Your task to perform on an android device: Is it going to rain this weekend? Image 0: 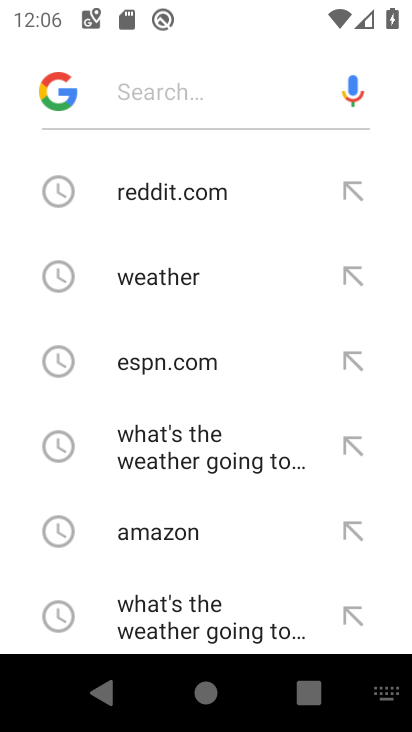
Step 0: press home button
Your task to perform on an android device: Is it going to rain this weekend? Image 1: 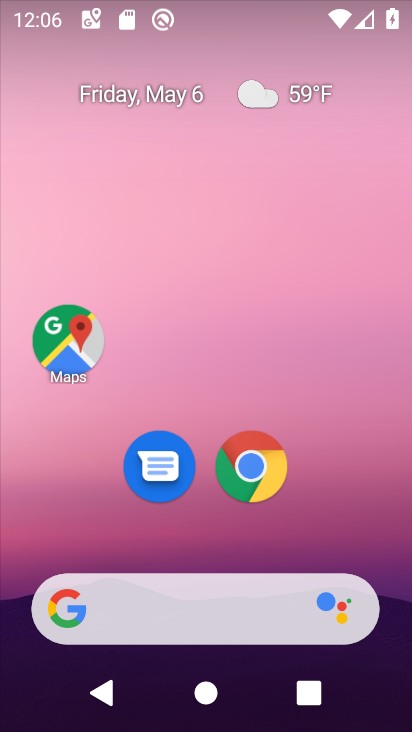
Step 1: click (276, 491)
Your task to perform on an android device: Is it going to rain this weekend? Image 2: 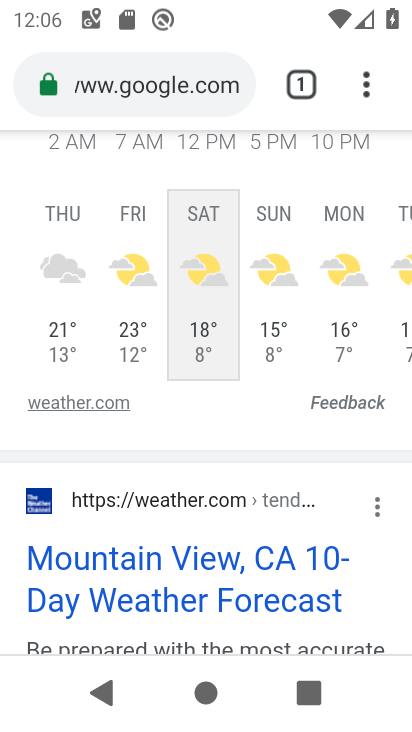
Step 2: click (191, 94)
Your task to perform on an android device: Is it going to rain this weekend? Image 3: 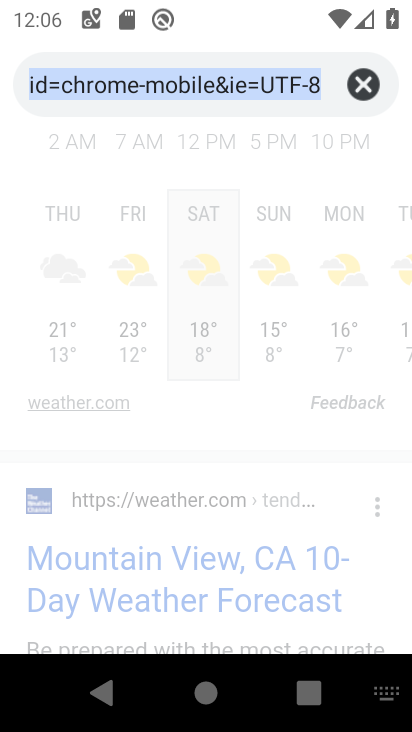
Step 3: type "Is it going to rain this weekend?"
Your task to perform on an android device: Is it going to rain this weekend? Image 4: 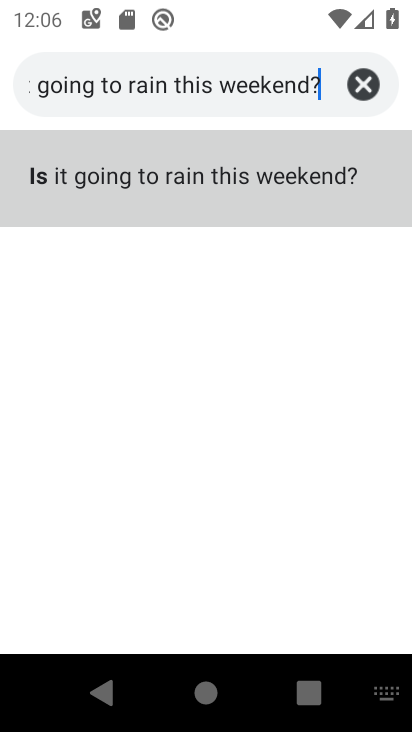
Step 4: click (269, 176)
Your task to perform on an android device: Is it going to rain this weekend? Image 5: 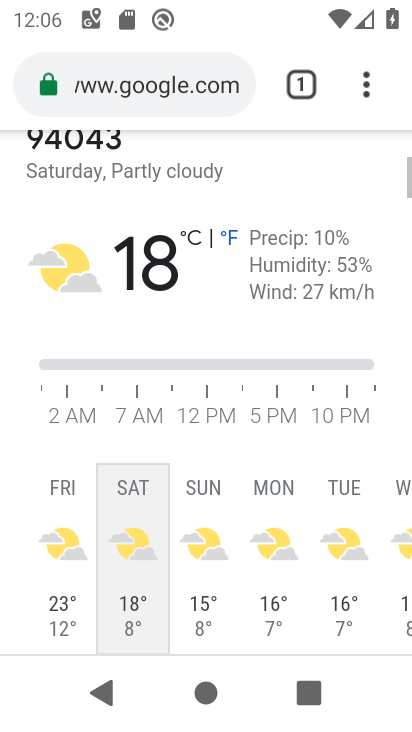
Step 5: task complete